Your task to perform on an android device: Go to notification settings Image 0: 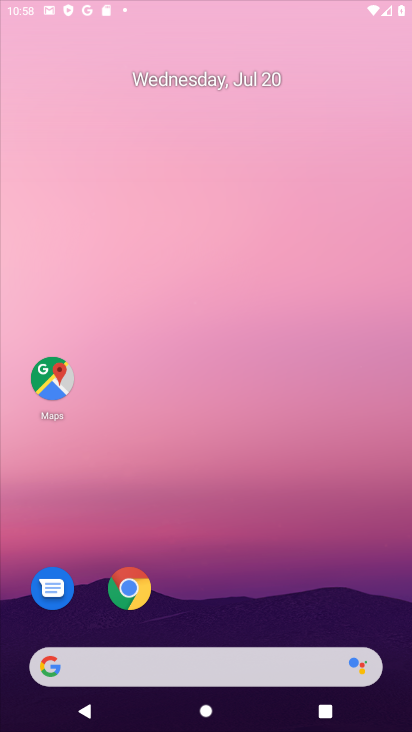
Step 0: drag from (214, 479) to (273, 60)
Your task to perform on an android device: Go to notification settings Image 1: 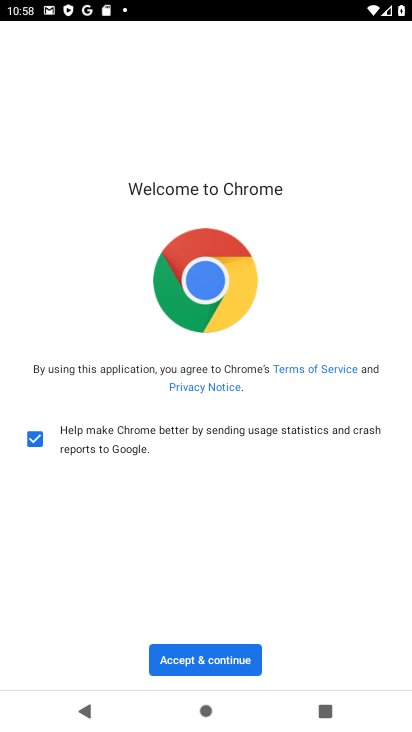
Step 1: press home button
Your task to perform on an android device: Go to notification settings Image 2: 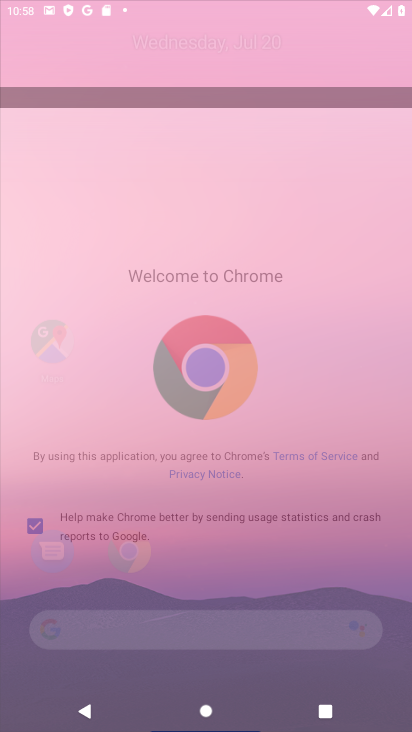
Step 2: drag from (279, 540) to (332, 433)
Your task to perform on an android device: Go to notification settings Image 3: 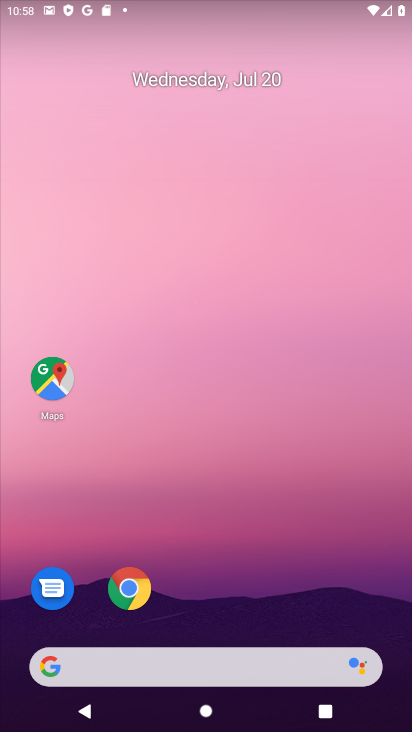
Step 3: drag from (177, 617) to (216, 287)
Your task to perform on an android device: Go to notification settings Image 4: 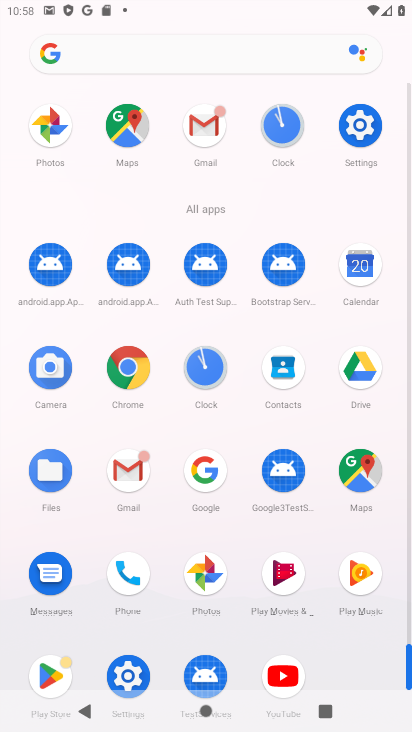
Step 4: click (354, 134)
Your task to perform on an android device: Go to notification settings Image 5: 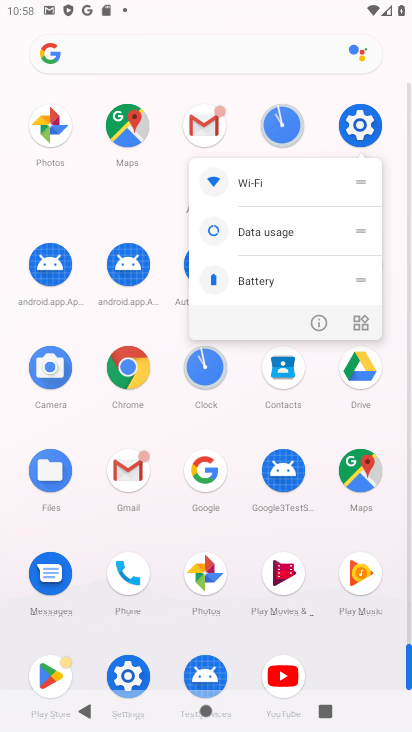
Step 5: click (316, 319)
Your task to perform on an android device: Go to notification settings Image 6: 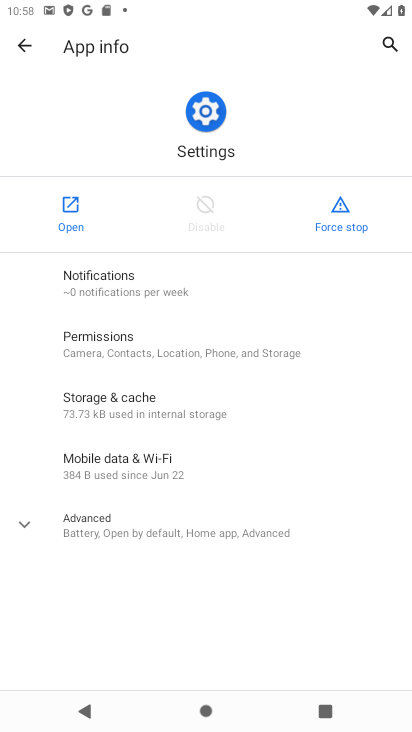
Step 6: click (61, 212)
Your task to perform on an android device: Go to notification settings Image 7: 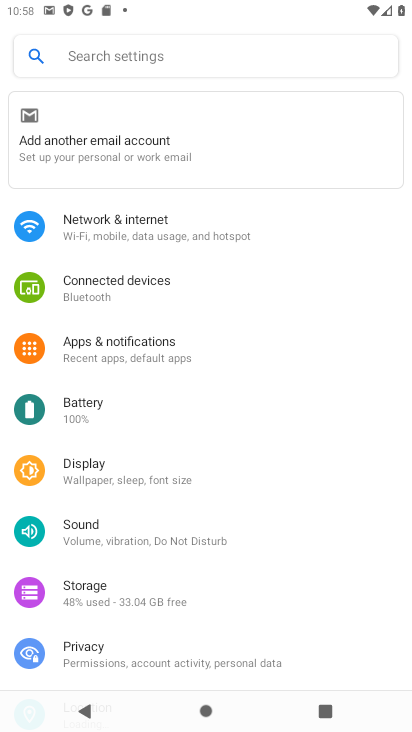
Step 7: click (139, 358)
Your task to perform on an android device: Go to notification settings Image 8: 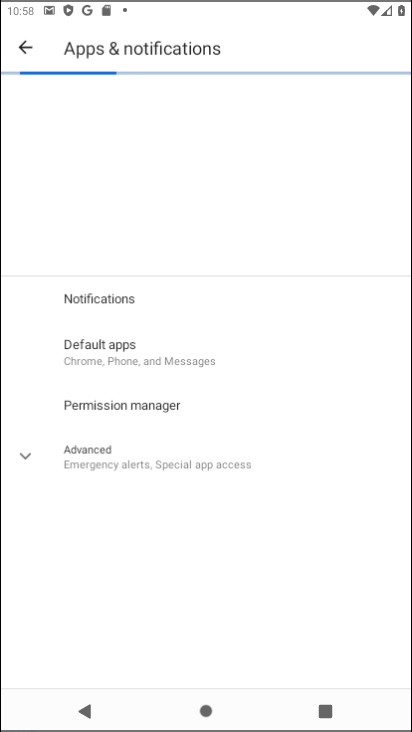
Step 8: drag from (185, 596) to (264, 291)
Your task to perform on an android device: Go to notification settings Image 9: 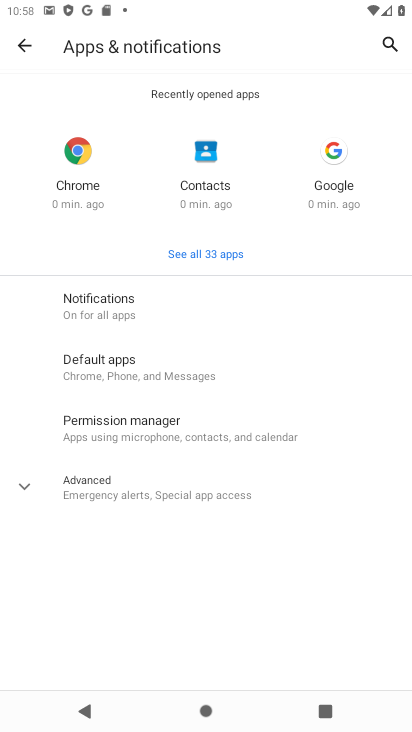
Step 9: click (113, 295)
Your task to perform on an android device: Go to notification settings Image 10: 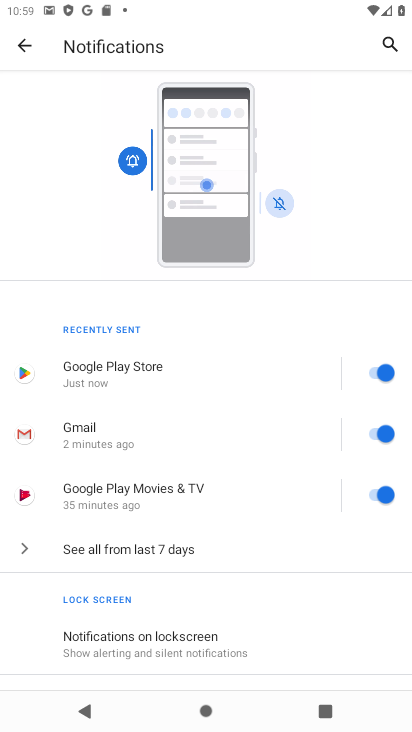
Step 10: drag from (218, 564) to (322, 148)
Your task to perform on an android device: Go to notification settings Image 11: 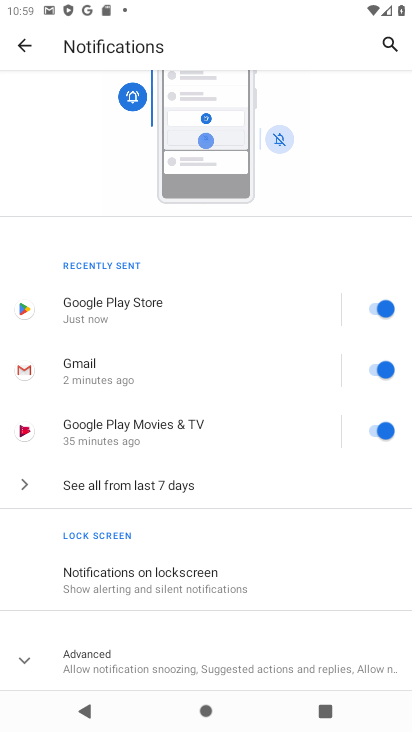
Step 11: drag from (250, 579) to (270, 264)
Your task to perform on an android device: Go to notification settings Image 12: 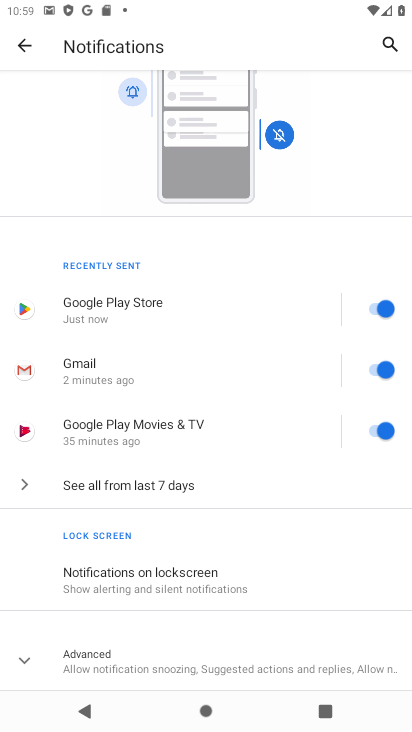
Step 12: drag from (229, 565) to (277, 329)
Your task to perform on an android device: Go to notification settings Image 13: 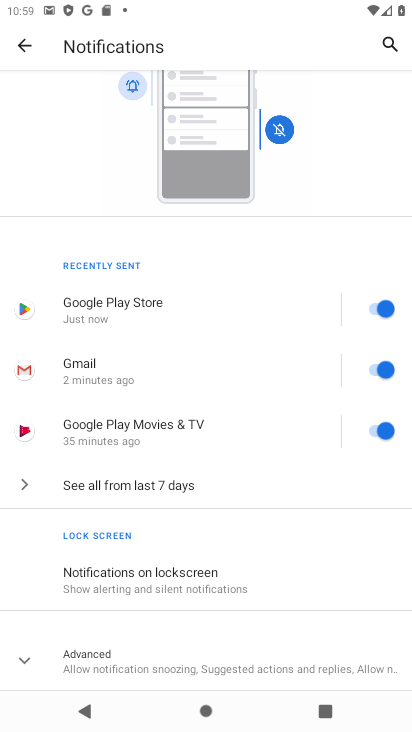
Step 13: drag from (187, 630) to (284, 211)
Your task to perform on an android device: Go to notification settings Image 14: 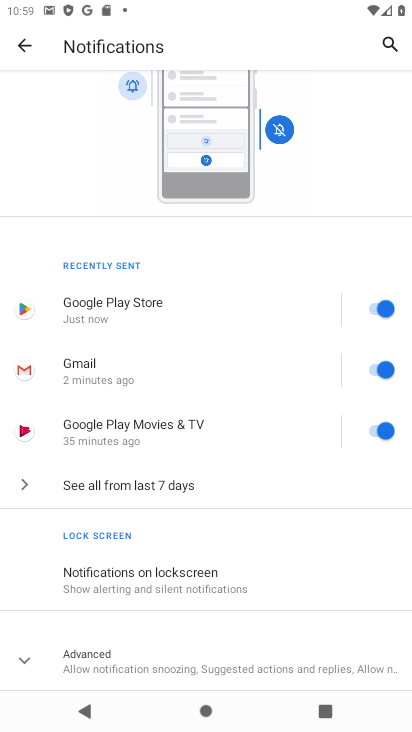
Step 14: drag from (305, 201) to (296, 721)
Your task to perform on an android device: Go to notification settings Image 15: 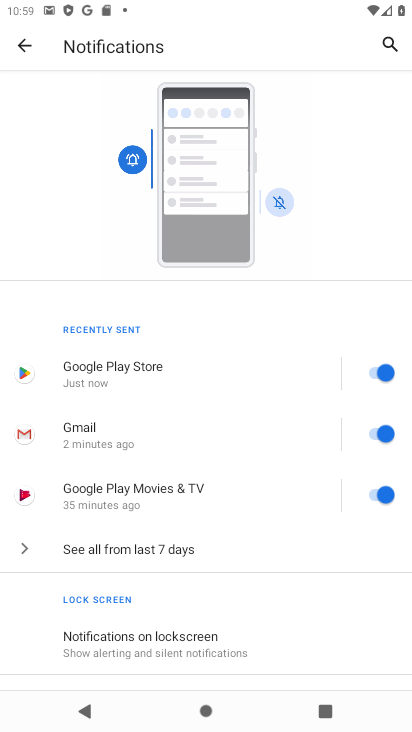
Step 15: drag from (225, 561) to (222, 171)
Your task to perform on an android device: Go to notification settings Image 16: 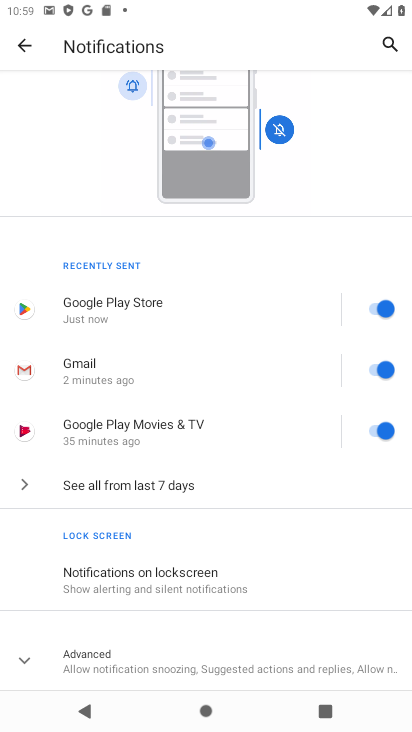
Step 16: drag from (141, 637) to (259, 210)
Your task to perform on an android device: Go to notification settings Image 17: 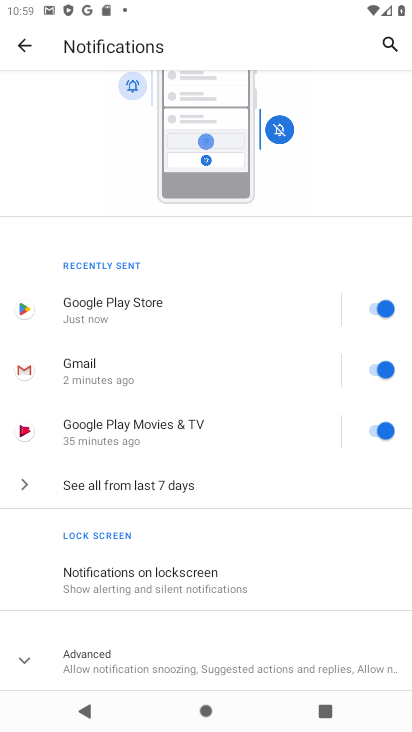
Step 17: click (171, 667)
Your task to perform on an android device: Go to notification settings Image 18: 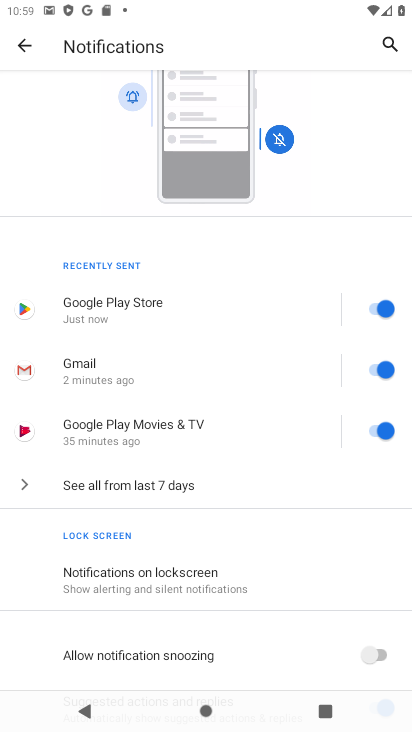
Step 18: task complete